Your task to perform on an android device: change the clock display to digital Image 0: 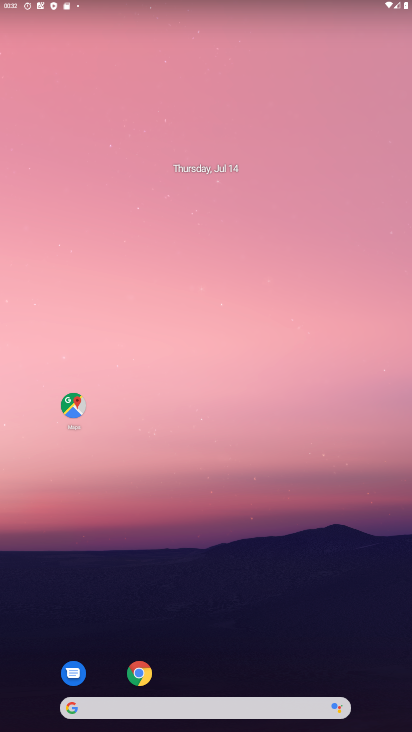
Step 0: drag from (207, 663) to (211, 303)
Your task to perform on an android device: change the clock display to digital Image 1: 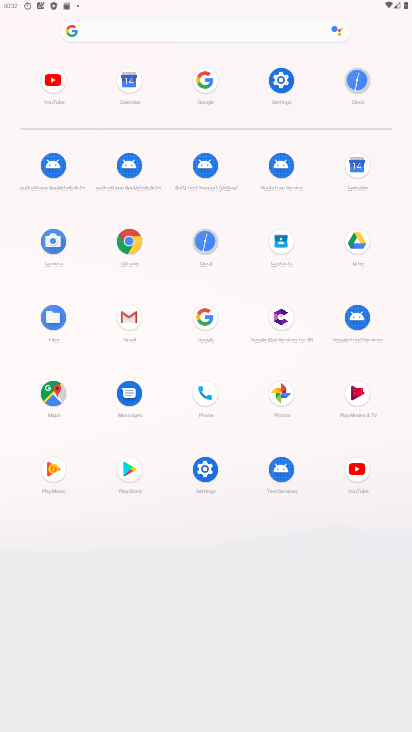
Step 1: click (217, 233)
Your task to perform on an android device: change the clock display to digital Image 2: 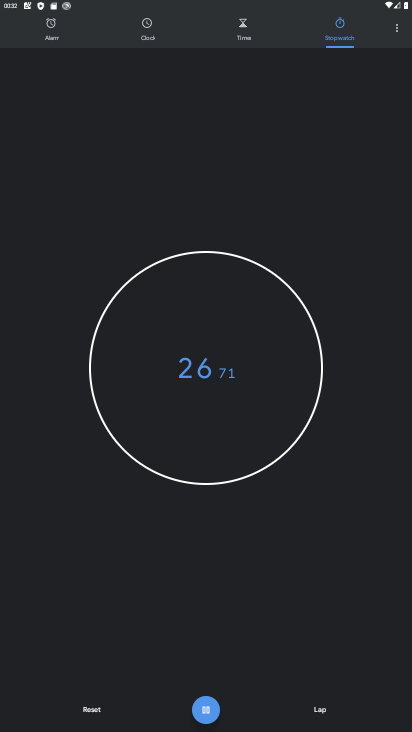
Step 2: click (393, 30)
Your task to perform on an android device: change the clock display to digital Image 3: 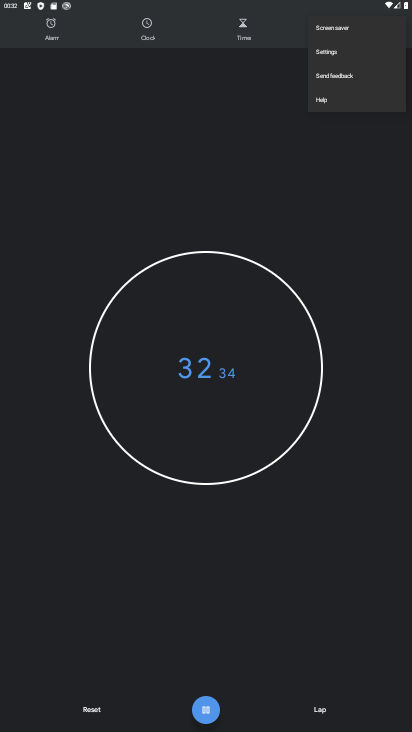
Step 3: click (340, 58)
Your task to perform on an android device: change the clock display to digital Image 4: 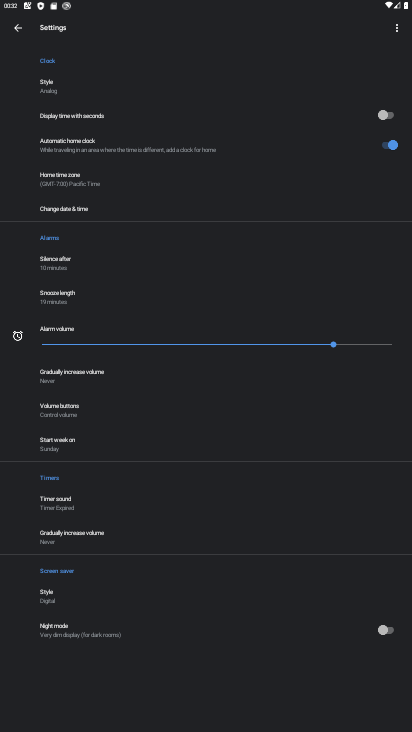
Step 4: click (76, 91)
Your task to perform on an android device: change the clock display to digital Image 5: 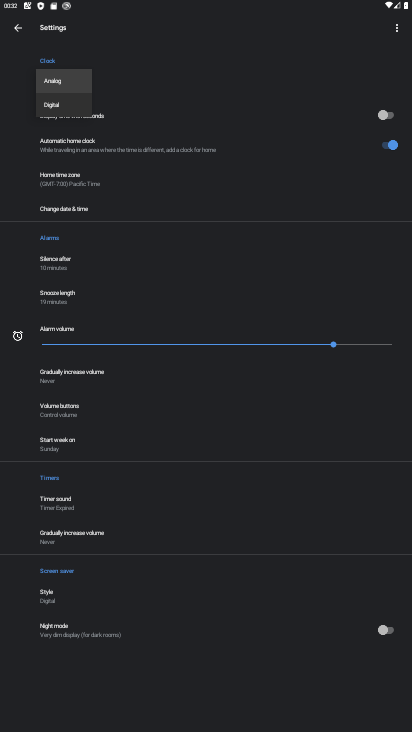
Step 5: click (65, 99)
Your task to perform on an android device: change the clock display to digital Image 6: 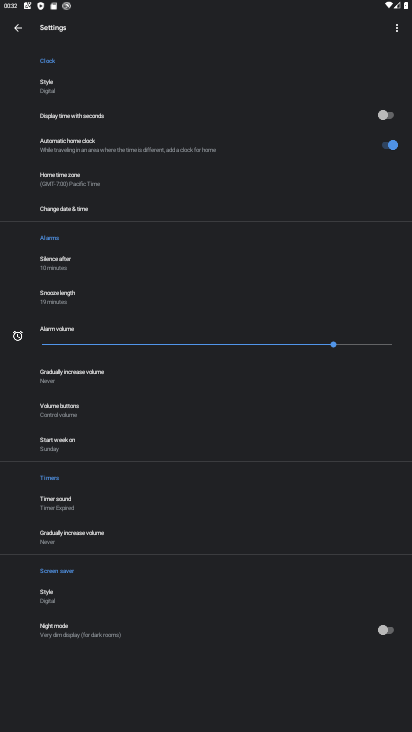
Step 6: task complete